Your task to perform on an android device: Show me recent news Image 0: 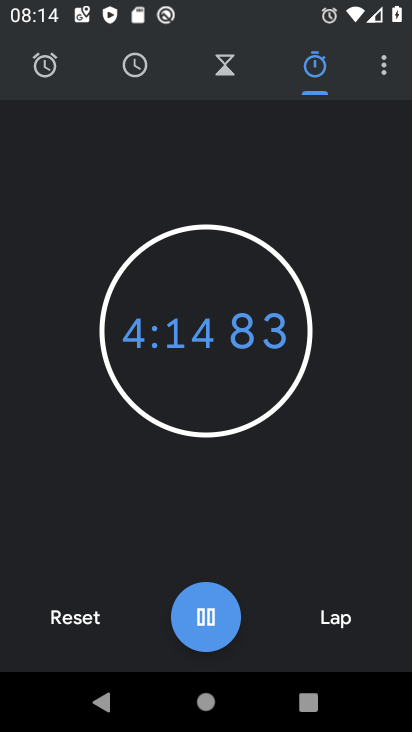
Step 0: press home button
Your task to perform on an android device: Show me recent news Image 1: 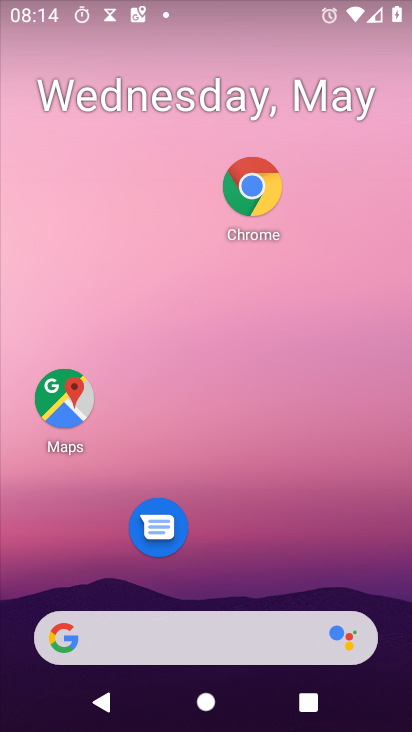
Step 1: click (267, 186)
Your task to perform on an android device: Show me recent news Image 2: 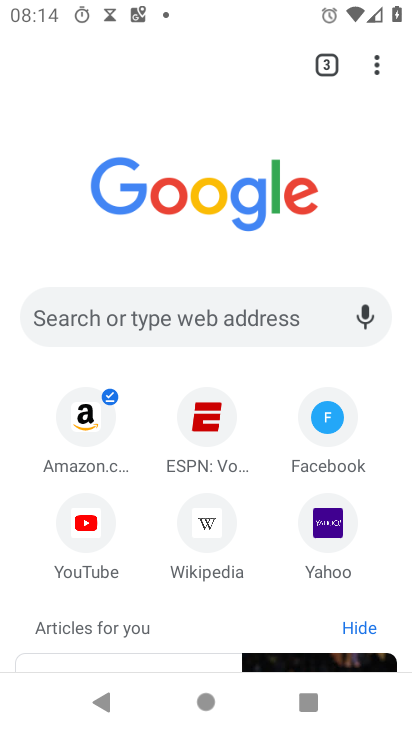
Step 2: click (182, 306)
Your task to perform on an android device: Show me recent news Image 3: 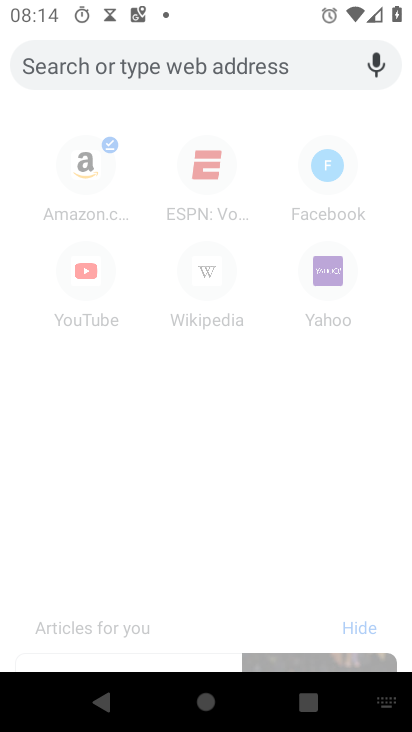
Step 3: type "Show me recent news"
Your task to perform on an android device: Show me recent news Image 4: 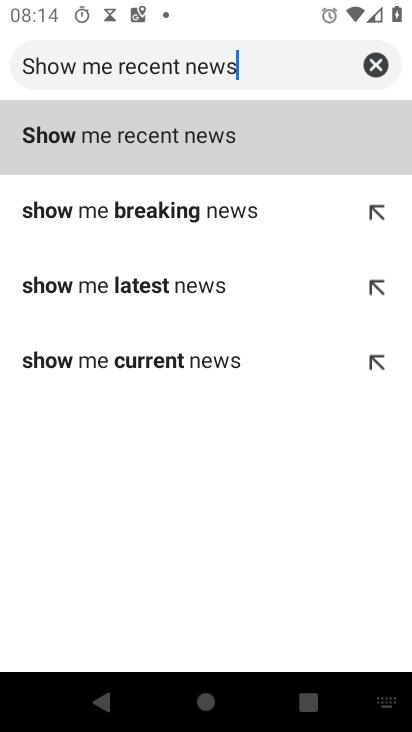
Step 4: click (118, 129)
Your task to perform on an android device: Show me recent news Image 5: 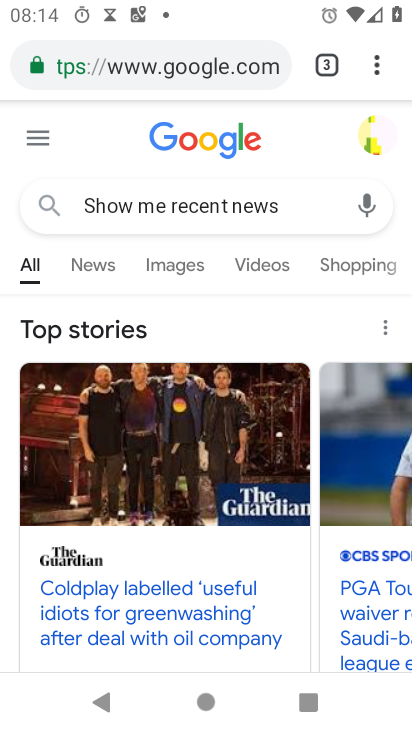
Step 5: click (87, 264)
Your task to perform on an android device: Show me recent news Image 6: 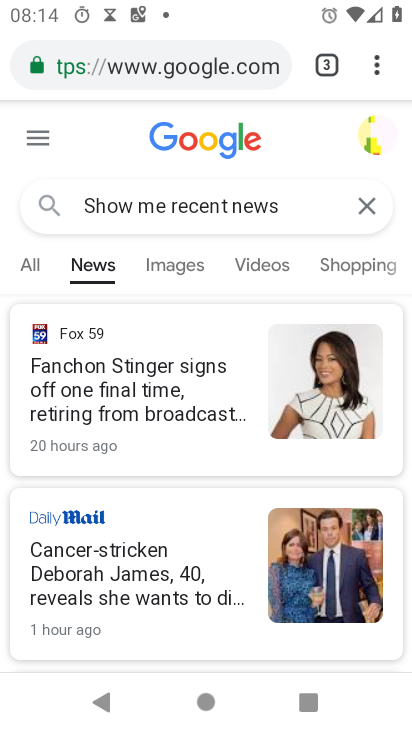
Step 6: task complete